Your task to perform on an android device: open a new tab in the chrome app Image 0: 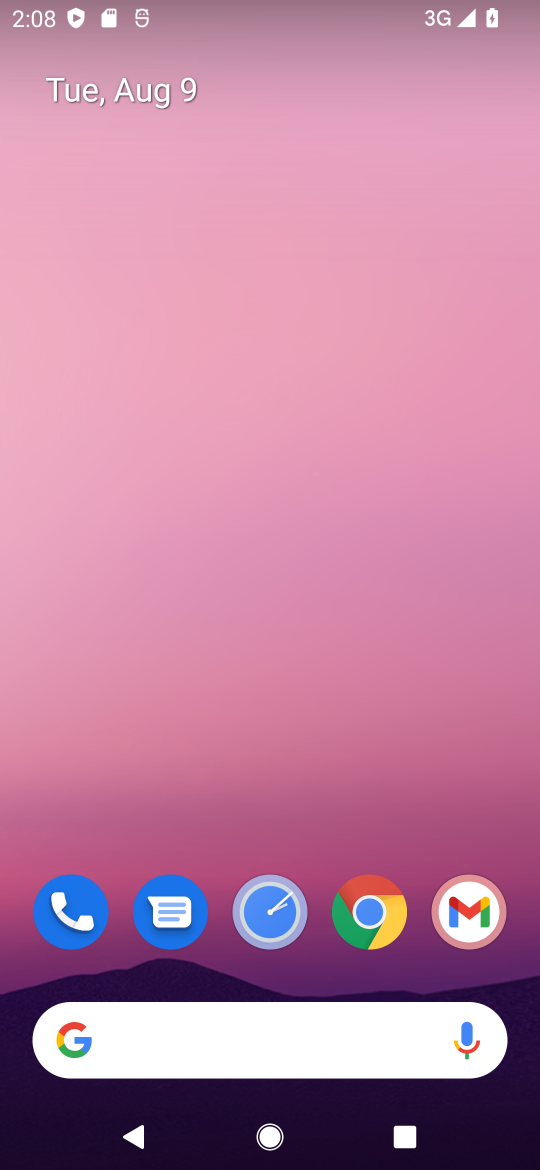
Step 0: click (374, 911)
Your task to perform on an android device: open a new tab in the chrome app Image 1: 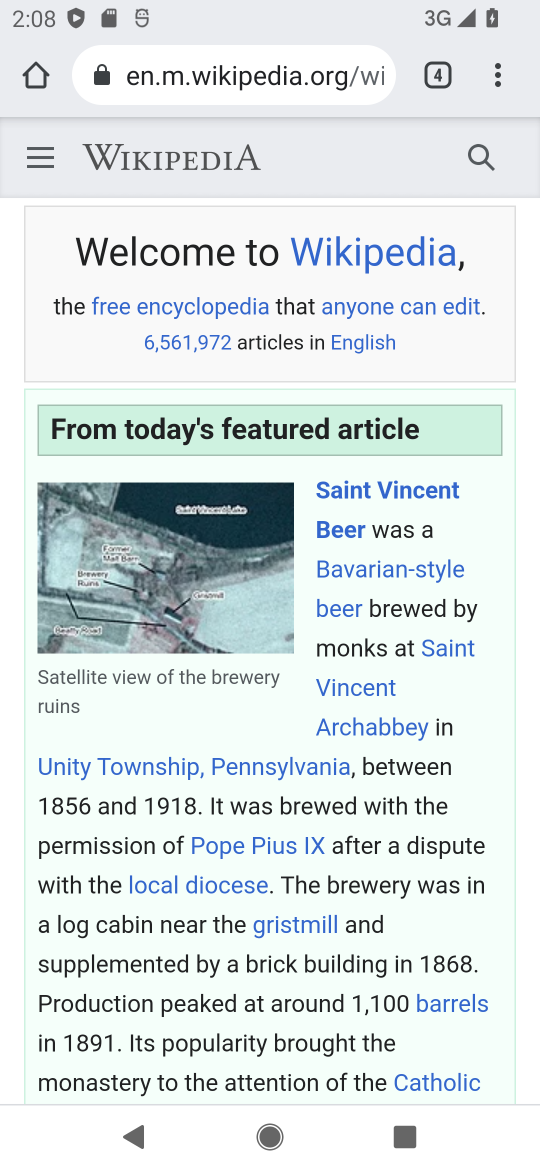
Step 1: click (497, 74)
Your task to perform on an android device: open a new tab in the chrome app Image 2: 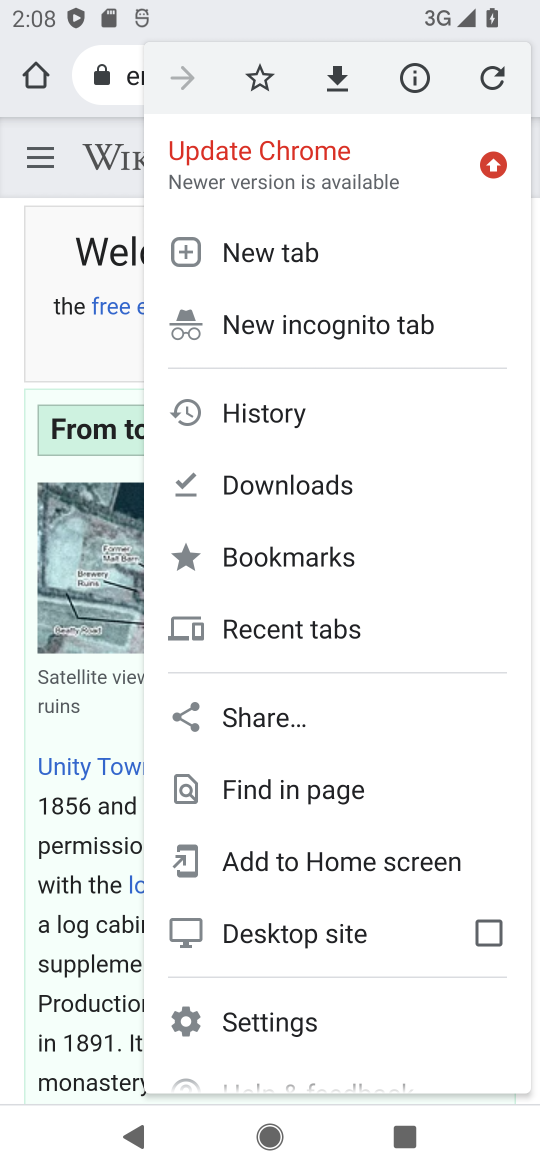
Step 2: click (282, 246)
Your task to perform on an android device: open a new tab in the chrome app Image 3: 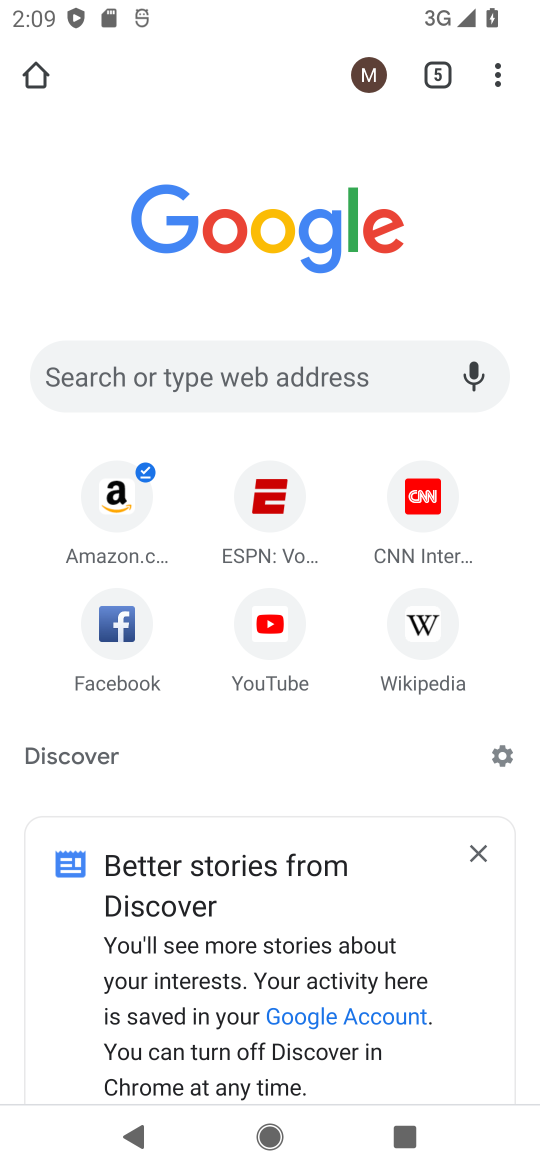
Step 3: task complete